Your task to perform on an android device: Go to wifi settings Image 0: 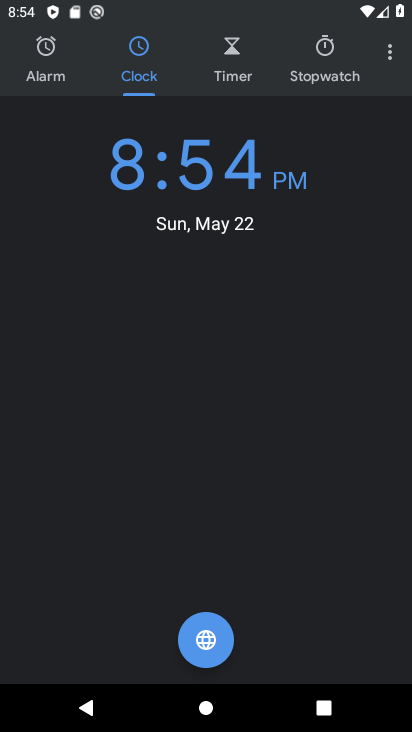
Step 0: press home button
Your task to perform on an android device: Go to wifi settings Image 1: 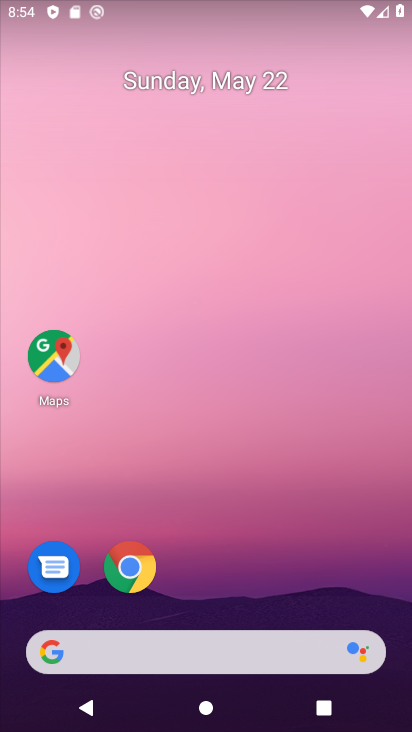
Step 1: drag from (236, 593) to (250, 196)
Your task to perform on an android device: Go to wifi settings Image 2: 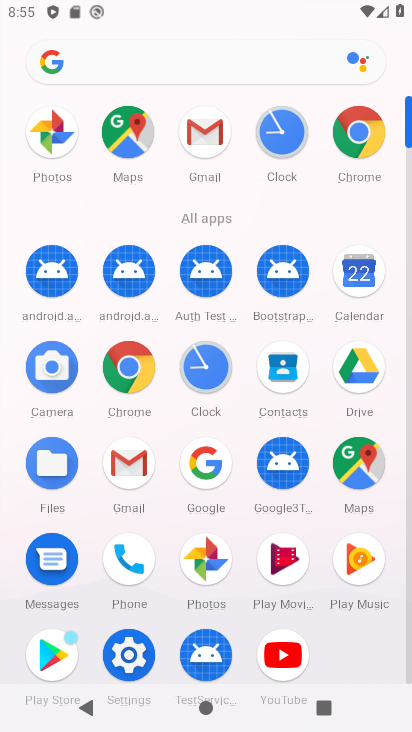
Step 2: click (133, 650)
Your task to perform on an android device: Go to wifi settings Image 3: 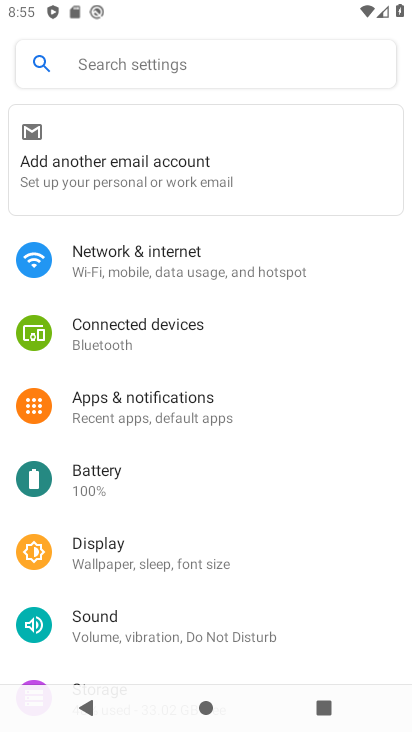
Step 3: click (155, 267)
Your task to perform on an android device: Go to wifi settings Image 4: 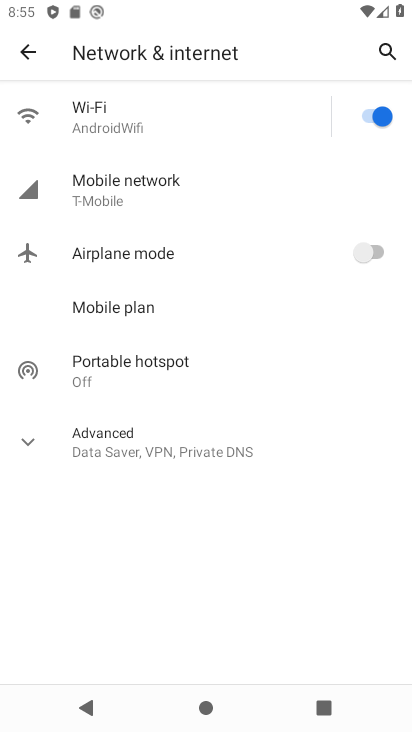
Step 4: click (102, 115)
Your task to perform on an android device: Go to wifi settings Image 5: 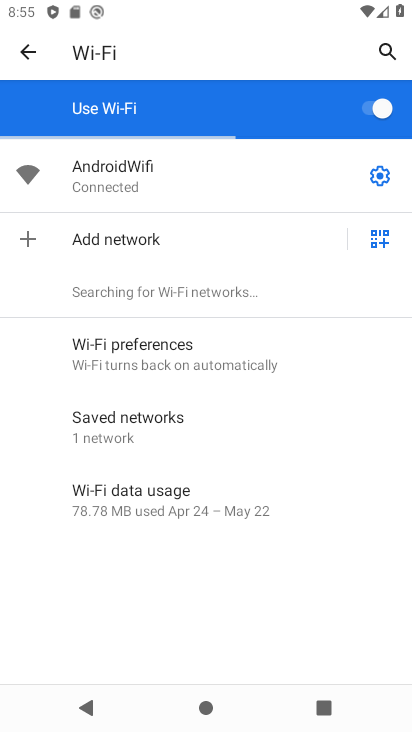
Step 5: task complete